Your task to perform on an android device: Open Google Maps Image 0: 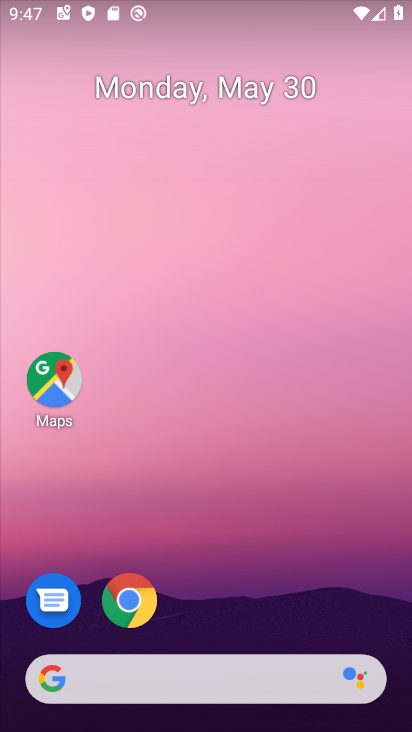
Step 0: click (40, 364)
Your task to perform on an android device: Open Google Maps Image 1: 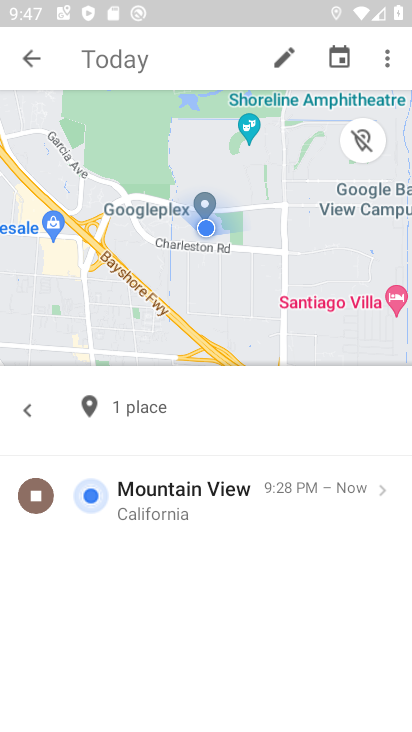
Step 1: click (29, 58)
Your task to perform on an android device: Open Google Maps Image 2: 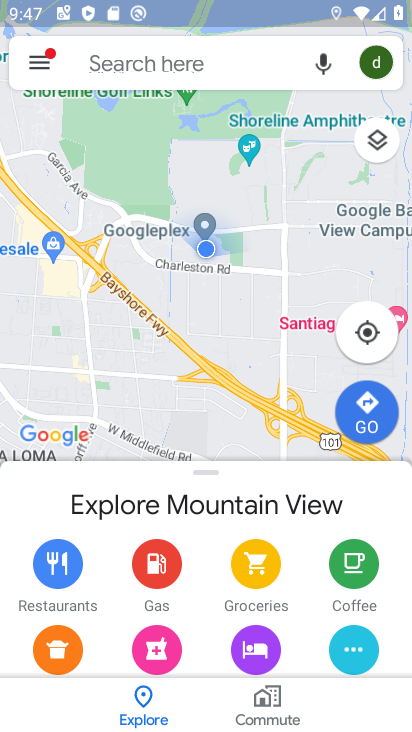
Step 2: task complete